Your task to perform on an android device: Open the phone app and click the voicemail tab. Image 0: 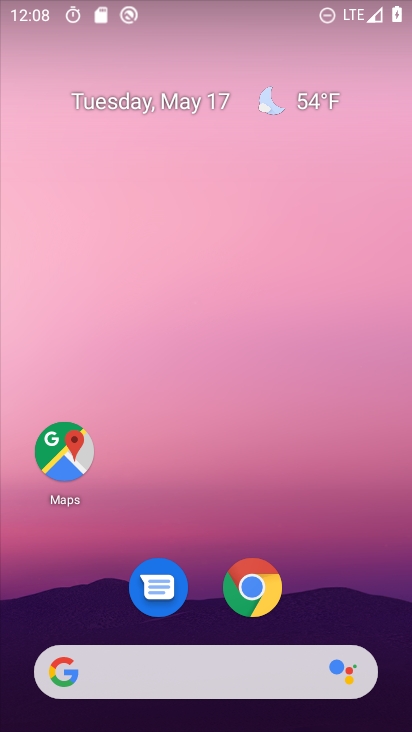
Step 0: drag from (207, 614) to (268, 102)
Your task to perform on an android device: Open the phone app and click the voicemail tab. Image 1: 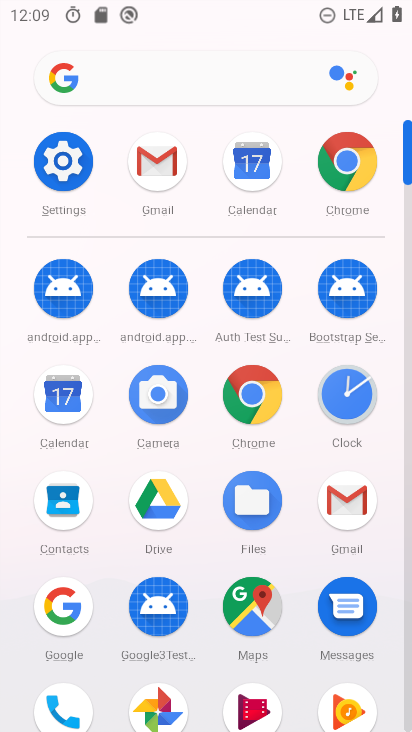
Step 1: drag from (175, 641) to (205, 245)
Your task to perform on an android device: Open the phone app and click the voicemail tab. Image 2: 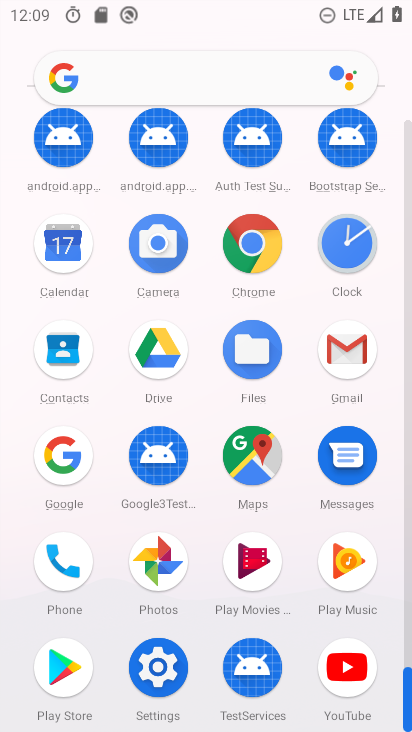
Step 2: click (69, 559)
Your task to perform on an android device: Open the phone app and click the voicemail tab. Image 3: 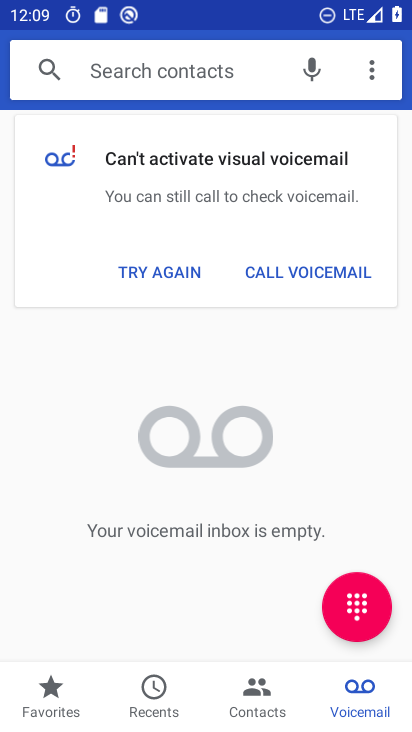
Step 3: click (361, 690)
Your task to perform on an android device: Open the phone app and click the voicemail tab. Image 4: 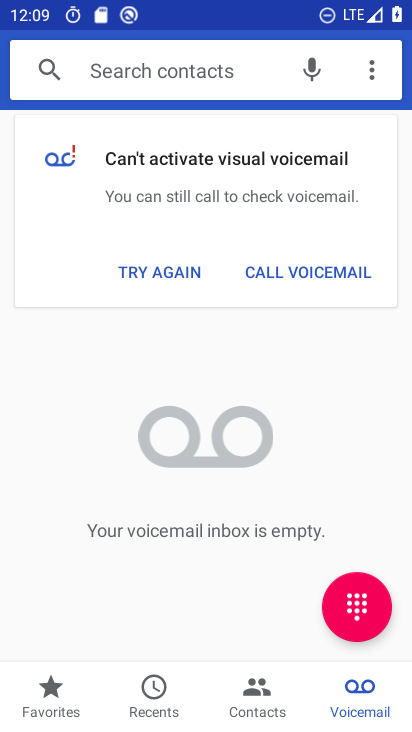
Step 4: task complete